Your task to perform on an android device: check out phone information Image 0: 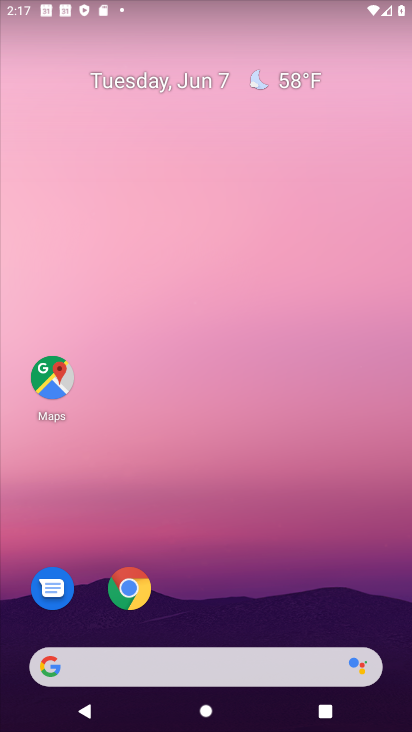
Step 0: drag from (282, 634) to (249, 215)
Your task to perform on an android device: check out phone information Image 1: 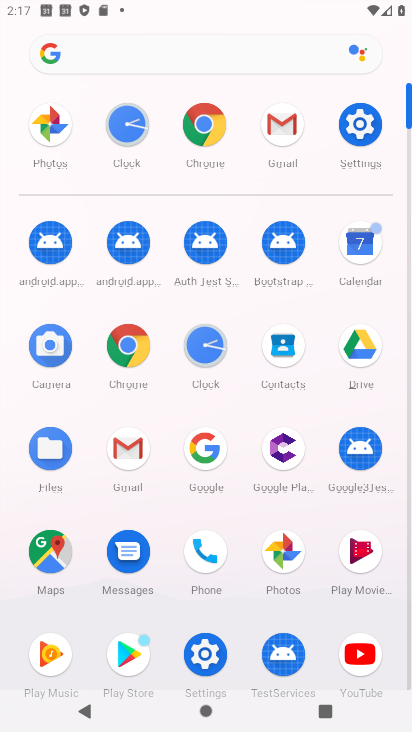
Step 1: click (350, 151)
Your task to perform on an android device: check out phone information Image 2: 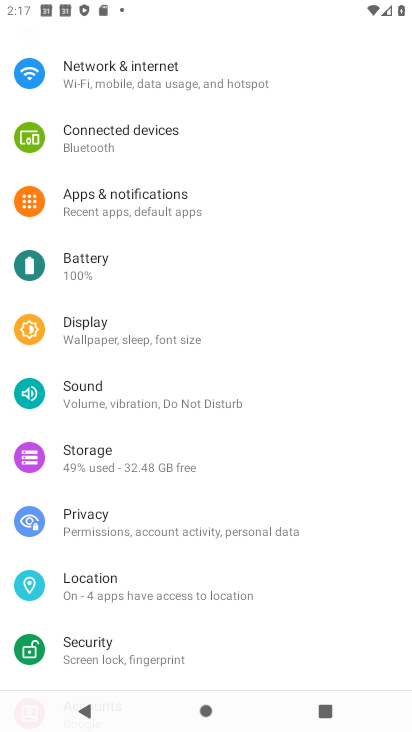
Step 2: task complete